Your task to perform on an android device: What's the weather going to be tomorrow? Image 0: 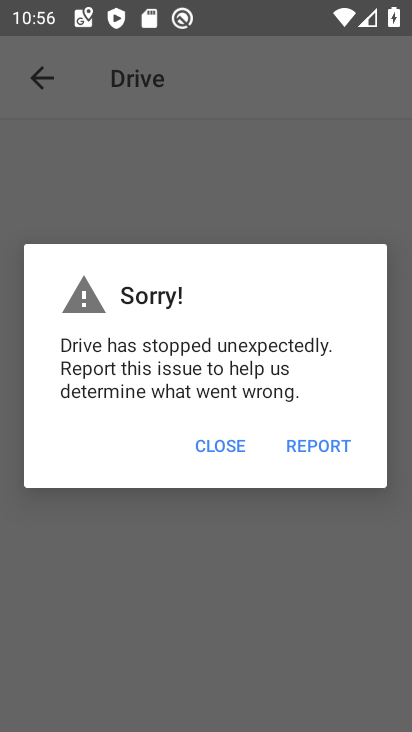
Step 0: press home button
Your task to perform on an android device: What's the weather going to be tomorrow? Image 1: 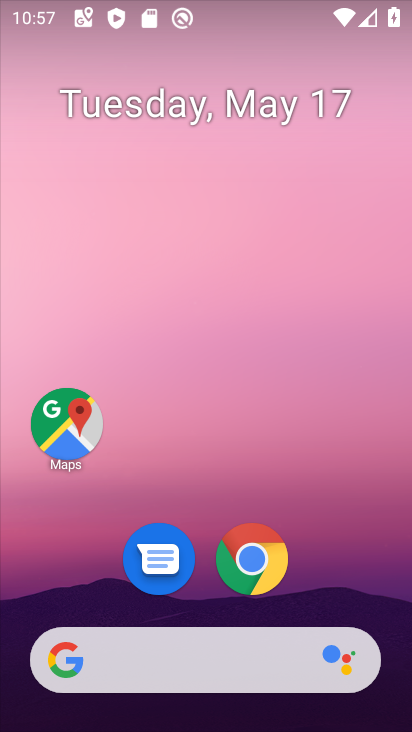
Step 1: click (199, 646)
Your task to perform on an android device: What's the weather going to be tomorrow? Image 2: 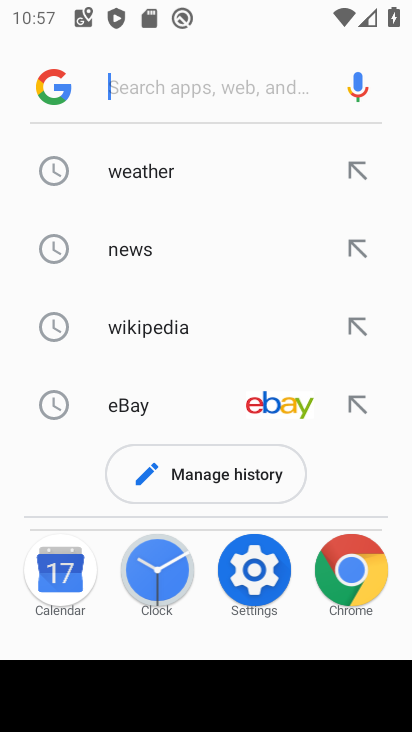
Step 2: type "What's the weather going to be tomorrow?"
Your task to perform on an android device: What's the weather going to be tomorrow? Image 3: 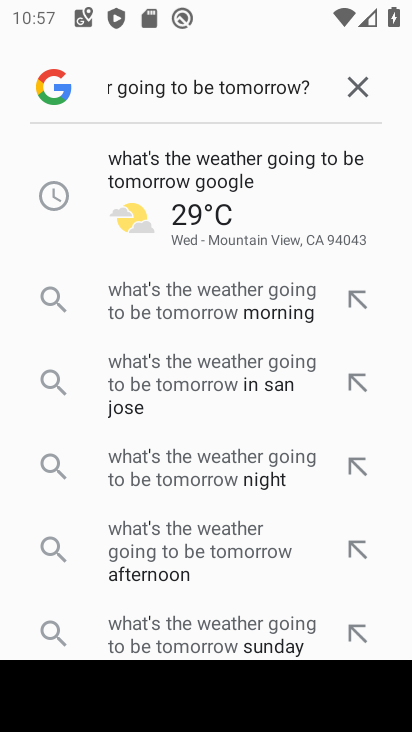
Step 3: click (138, 162)
Your task to perform on an android device: What's the weather going to be tomorrow? Image 4: 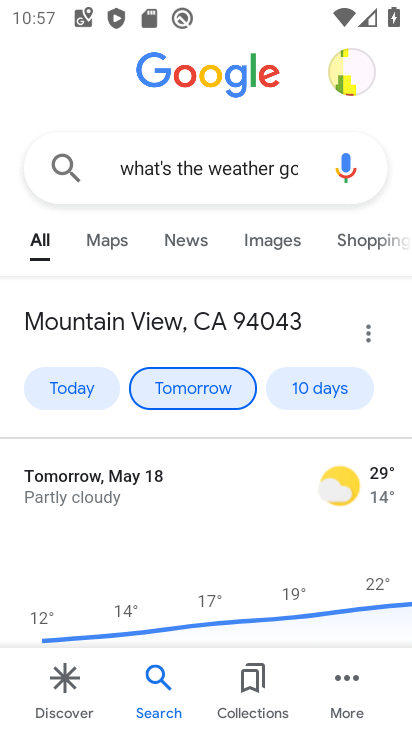
Step 4: task complete